Your task to perform on an android device: Open CNN.com Image 0: 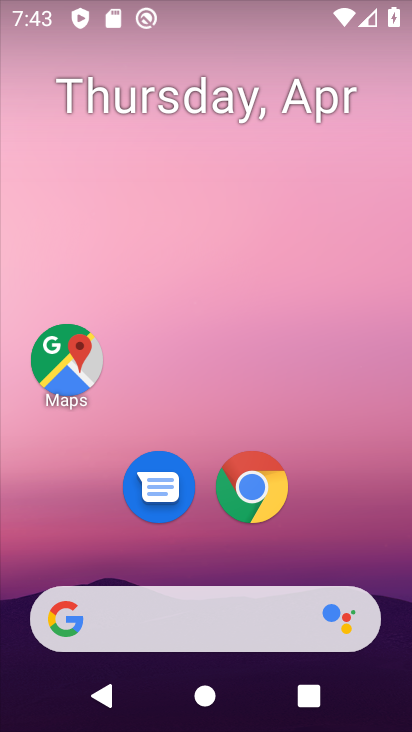
Step 0: drag from (356, 555) to (236, 115)
Your task to perform on an android device: Open CNN.com Image 1: 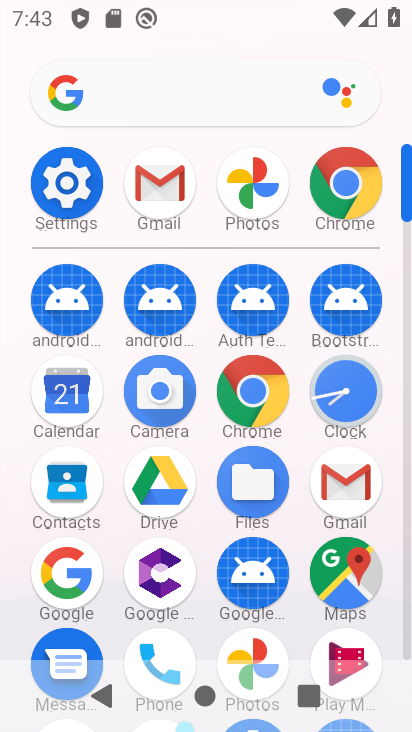
Step 1: click (348, 184)
Your task to perform on an android device: Open CNN.com Image 2: 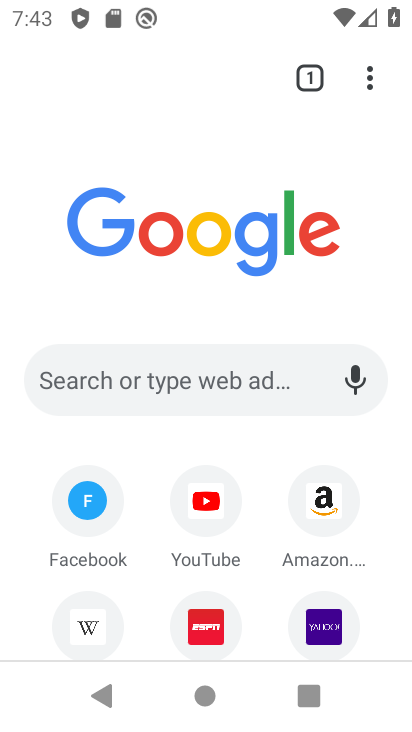
Step 2: click (188, 369)
Your task to perform on an android device: Open CNN.com Image 3: 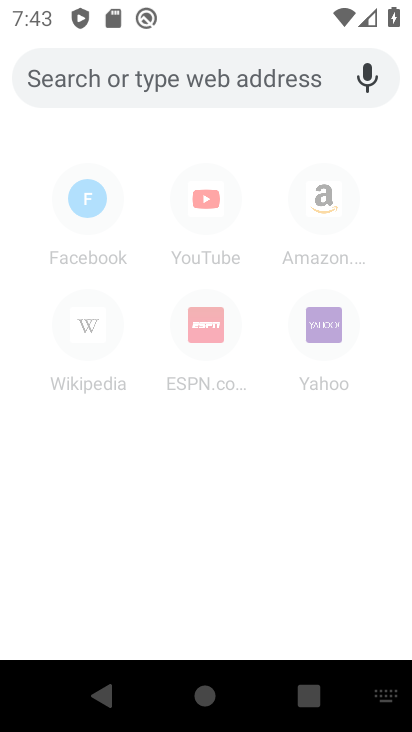
Step 3: type "cnn.com"
Your task to perform on an android device: Open CNN.com Image 4: 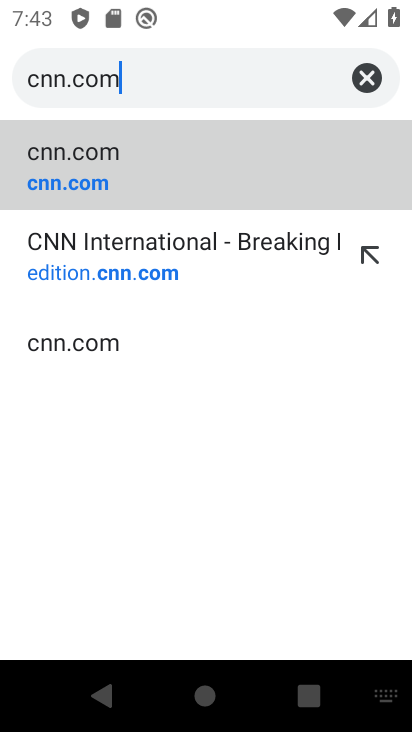
Step 4: click (261, 188)
Your task to perform on an android device: Open CNN.com Image 5: 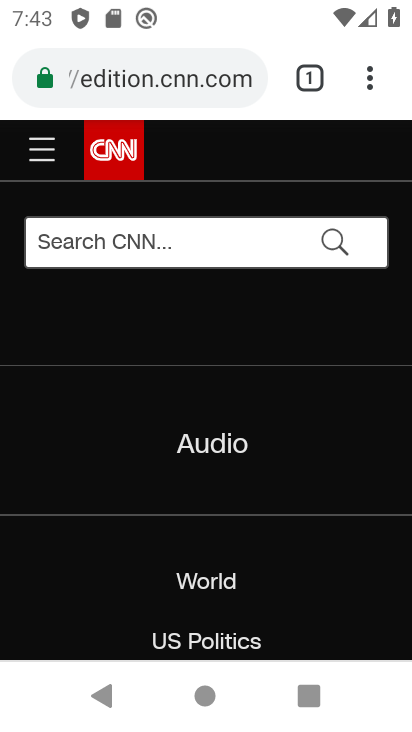
Step 5: task complete